Your task to perform on an android device: Open Google Maps Image 0: 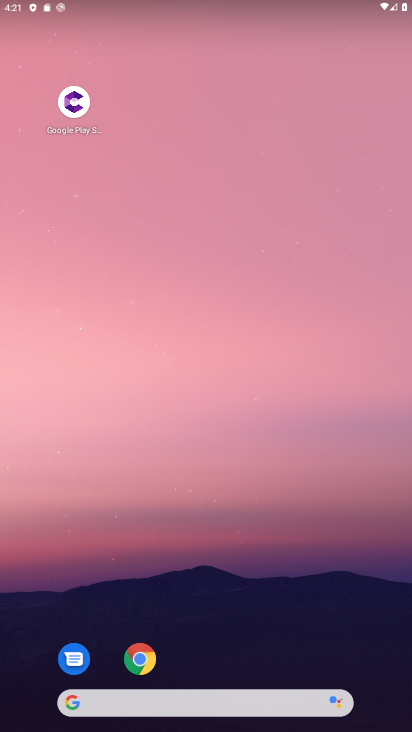
Step 0: drag from (249, 567) to (307, 0)
Your task to perform on an android device: Open Google Maps Image 1: 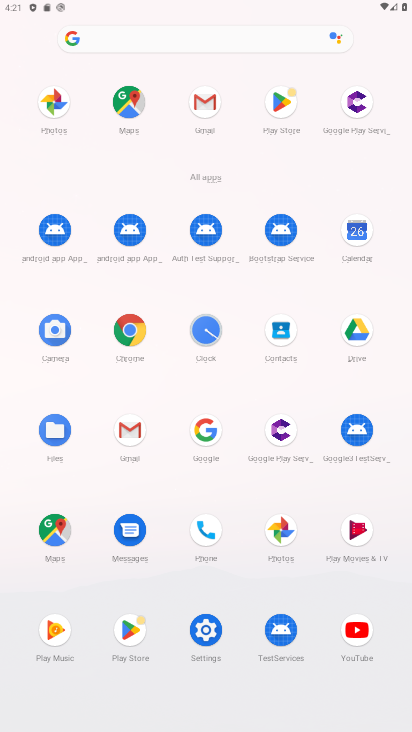
Step 1: click (54, 536)
Your task to perform on an android device: Open Google Maps Image 2: 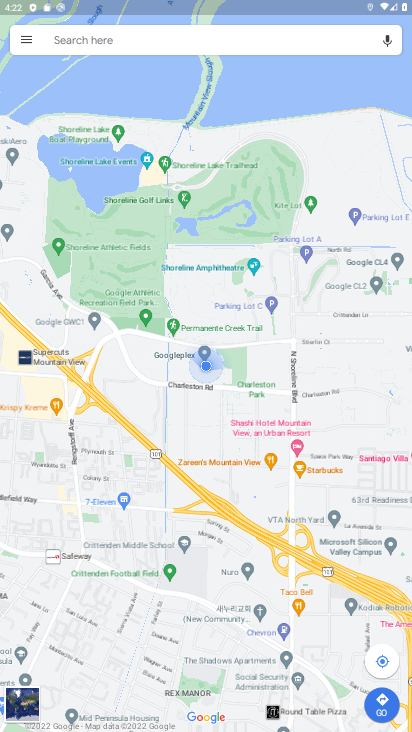
Step 2: task complete